Your task to perform on an android device: Do I have any events today? Image 0: 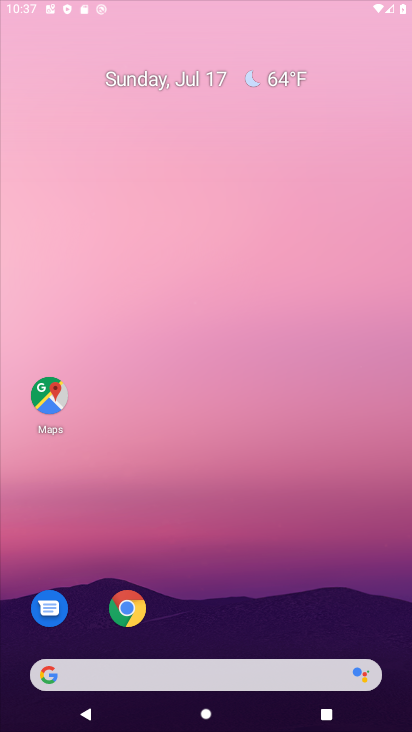
Step 0: drag from (26, 690) to (144, 292)
Your task to perform on an android device: Do I have any events today? Image 1: 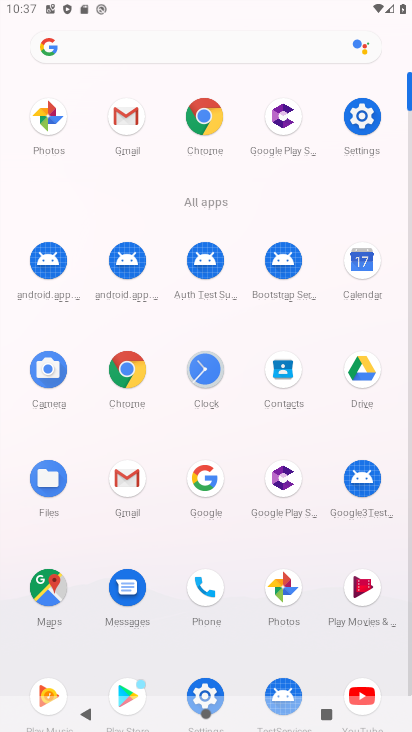
Step 1: click (379, 259)
Your task to perform on an android device: Do I have any events today? Image 2: 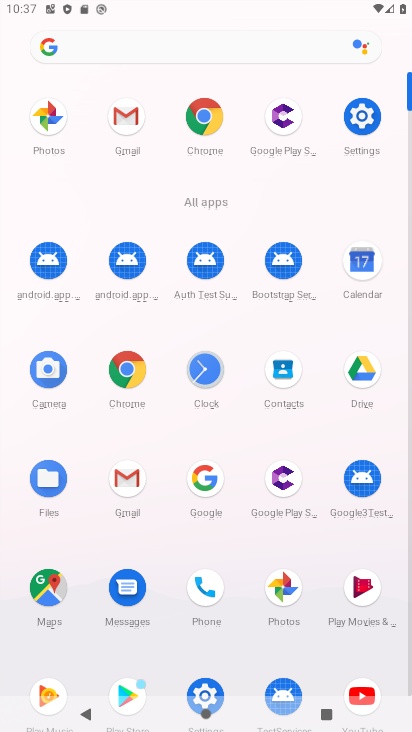
Step 2: click (375, 260)
Your task to perform on an android device: Do I have any events today? Image 3: 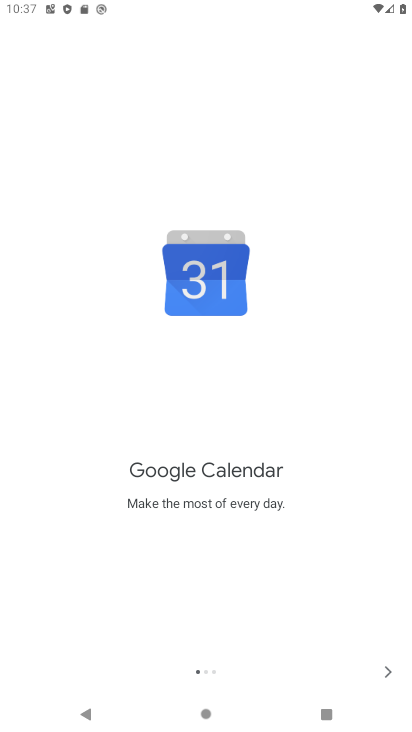
Step 3: click (379, 669)
Your task to perform on an android device: Do I have any events today? Image 4: 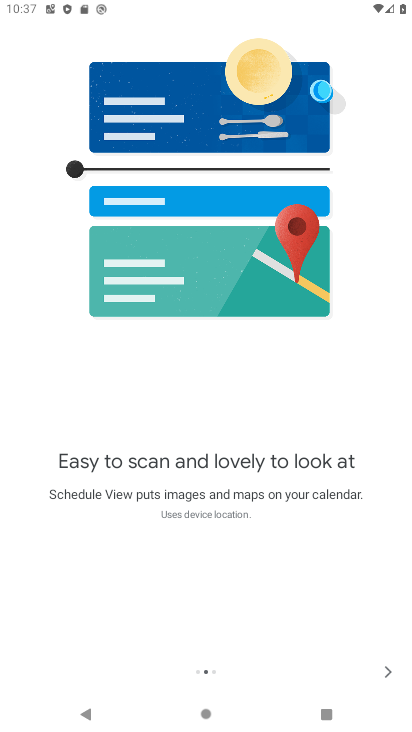
Step 4: click (381, 665)
Your task to perform on an android device: Do I have any events today? Image 5: 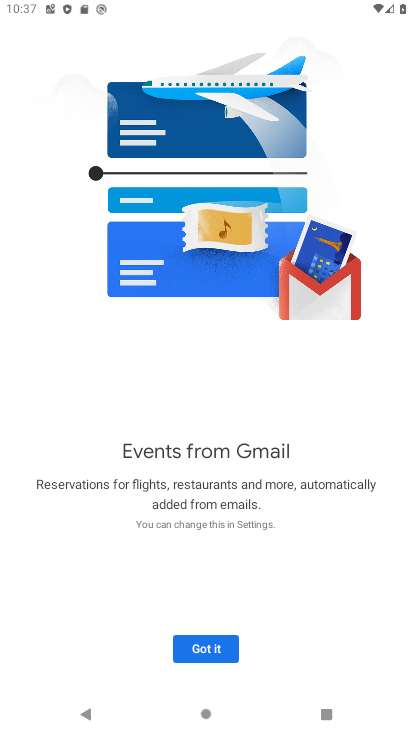
Step 5: click (200, 642)
Your task to perform on an android device: Do I have any events today? Image 6: 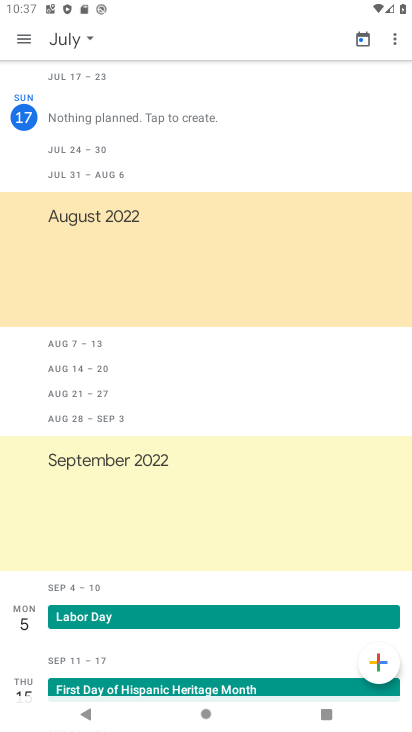
Step 6: click (72, 39)
Your task to perform on an android device: Do I have any events today? Image 7: 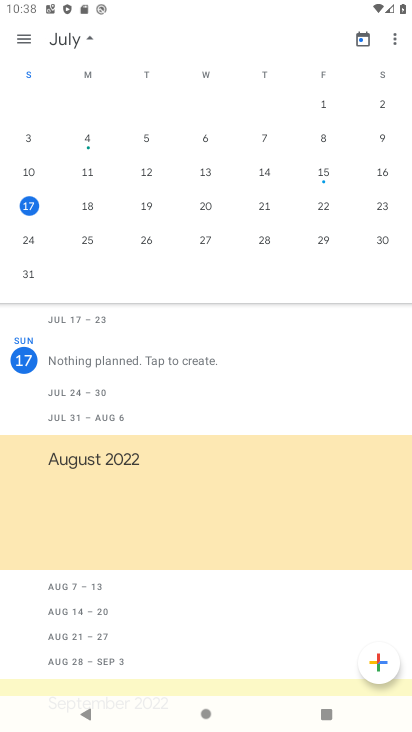
Step 7: task complete